Your task to perform on an android device: find photos in the google photos app Image 0: 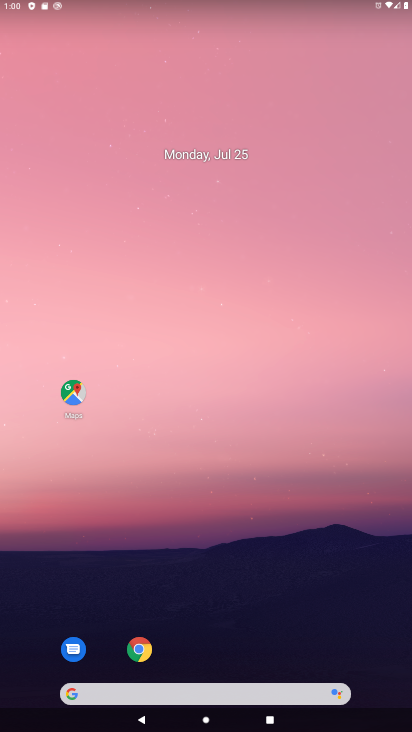
Step 0: press home button
Your task to perform on an android device: find photos in the google photos app Image 1: 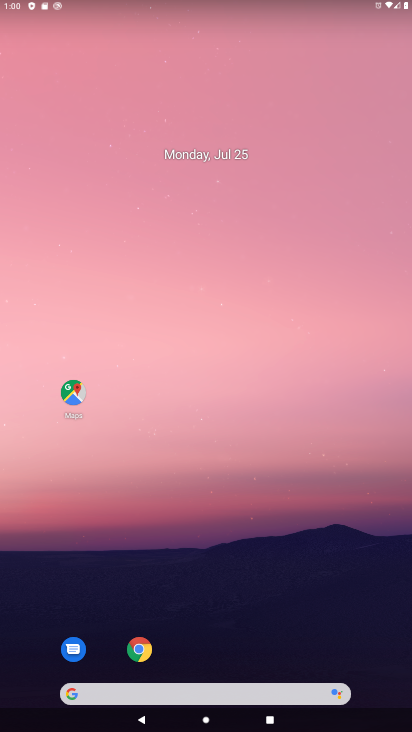
Step 1: drag from (272, 650) to (271, 115)
Your task to perform on an android device: find photos in the google photos app Image 2: 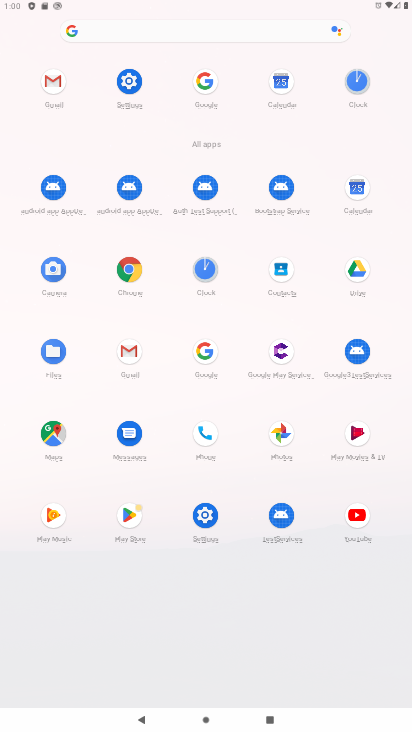
Step 2: click (285, 431)
Your task to perform on an android device: find photos in the google photos app Image 3: 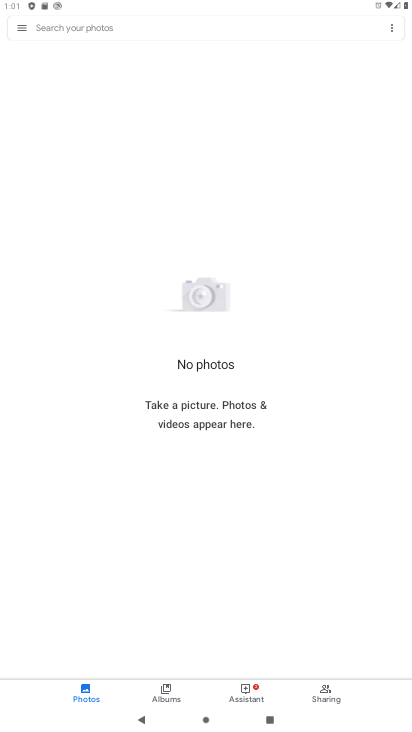
Step 3: task complete